Your task to perform on an android device: Find coffee shops on Maps Image 0: 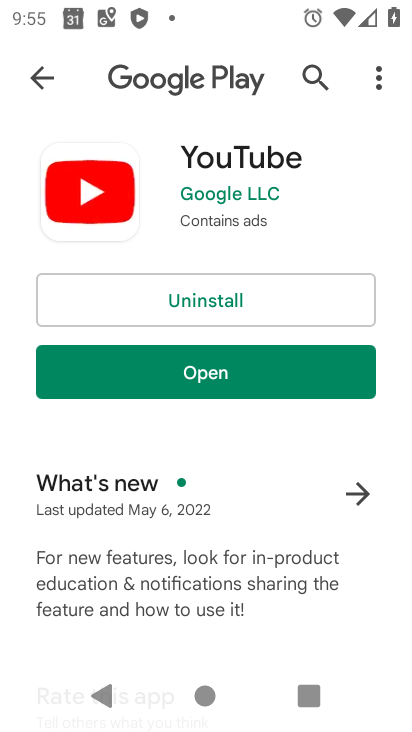
Step 0: press home button
Your task to perform on an android device: Find coffee shops on Maps Image 1: 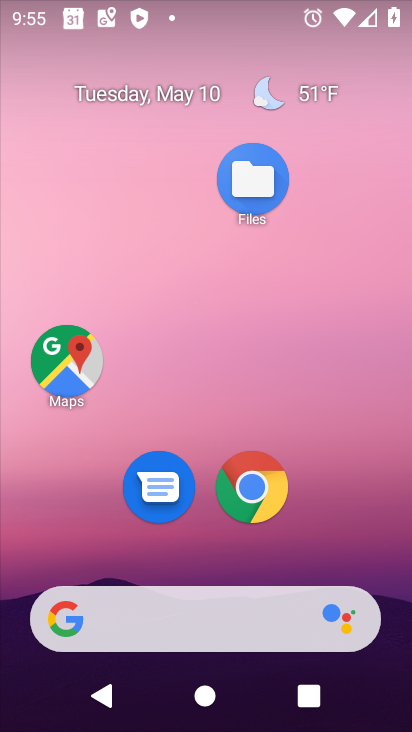
Step 1: click (71, 369)
Your task to perform on an android device: Find coffee shops on Maps Image 2: 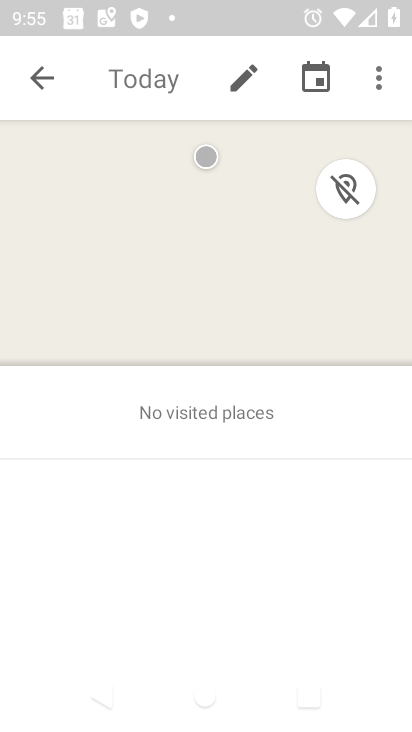
Step 2: press back button
Your task to perform on an android device: Find coffee shops on Maps Image 3: 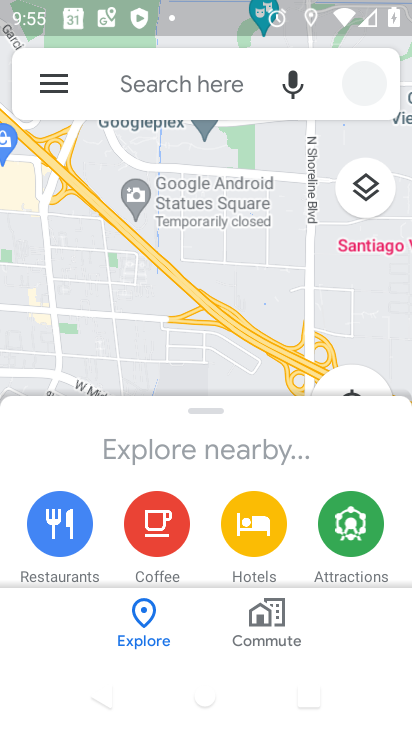
Step 3: click (142, 82)
Your task to perform on an android device: Find coffee shops on Maps Image 4: 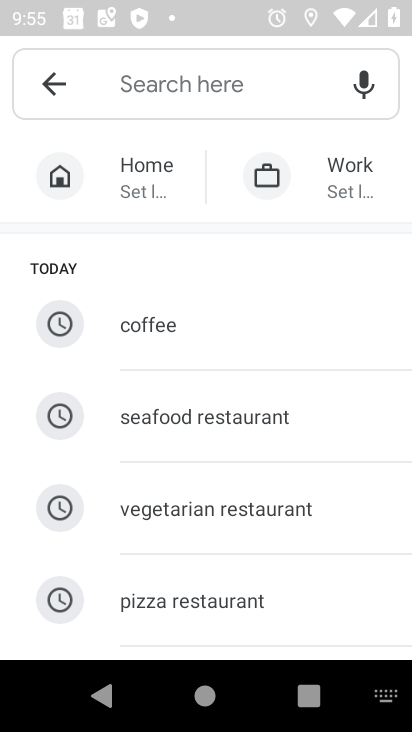
Step 4: type "coffee shop"
Your task to perform on an android device: Find coffee shops on Maps Image 5: 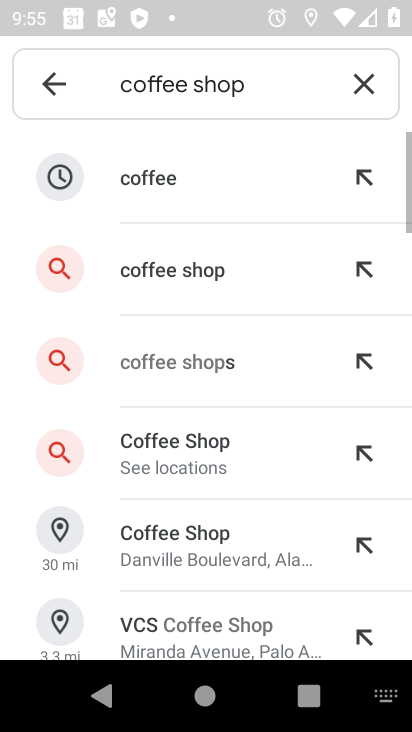
Step 5: click (165, 286)
Your task to perform on an android device: Find coffee shops on Maps Image 6: 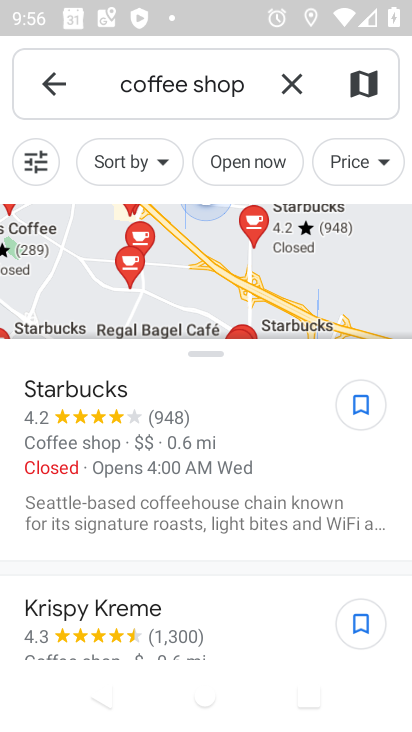
Step 6: task complete